Your task to perform on an android device: toggle location history Image 0: 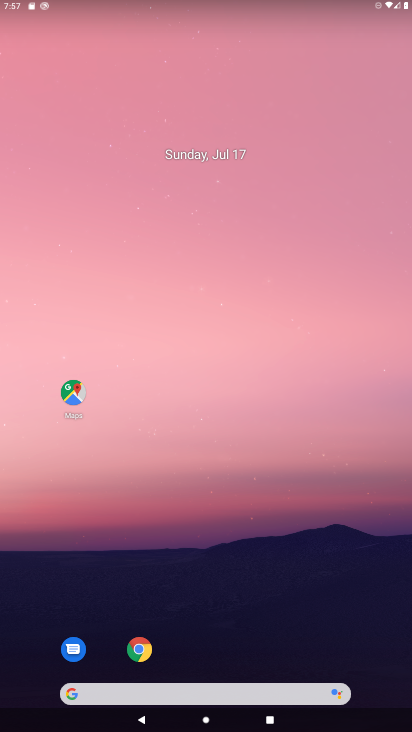
Step 0: drag from (219, 660) to (211, 20)
Your task to perform on an android device: toggle location history Image 1: 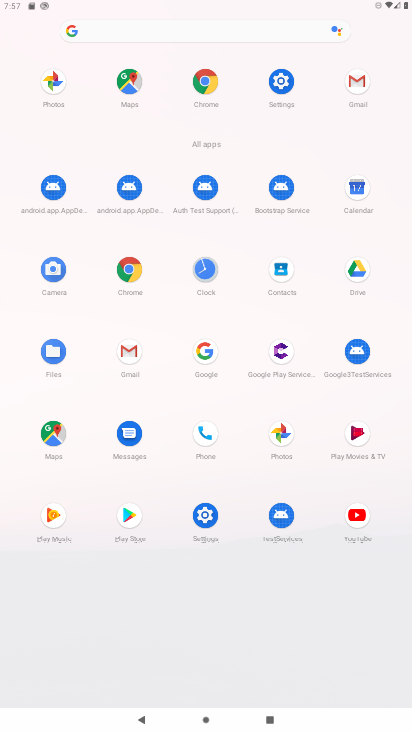
Step 1: click (291, 76)
Your task to perform on an android device: toggle location history Image 2: 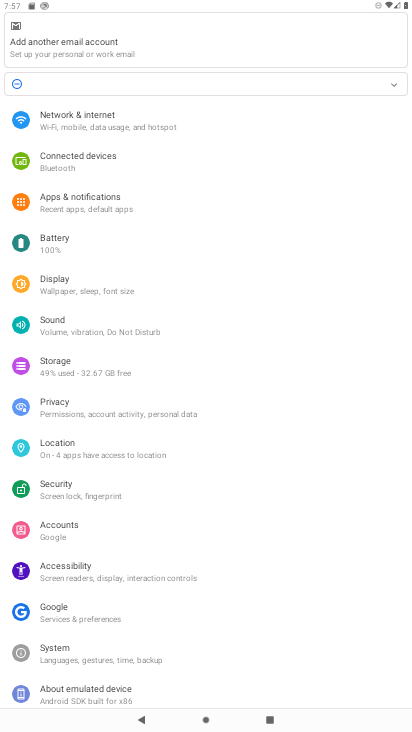
Step 2: click (68, 461)
Your task to perform on an android device: toggle location history Image 3: 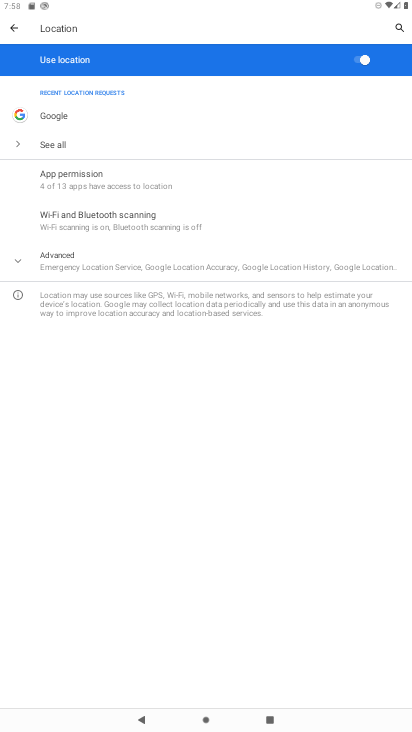
Step 3: click (115, 245)
Your task to perform on an android device: toggle location history Image 4: 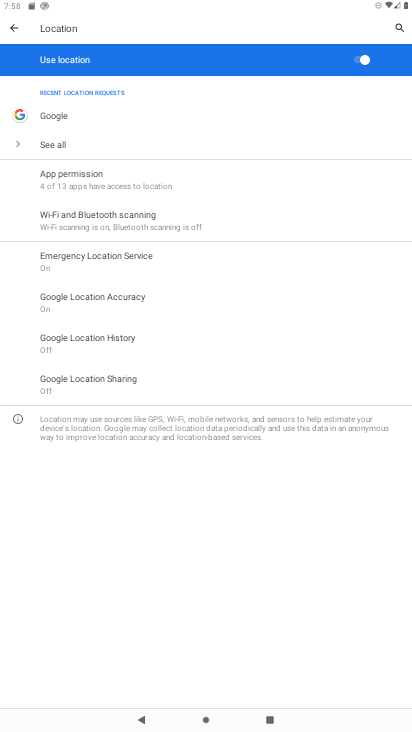
Step 4: click (119, 340)
Your task to perform on an android device: toggle location history Image 5: 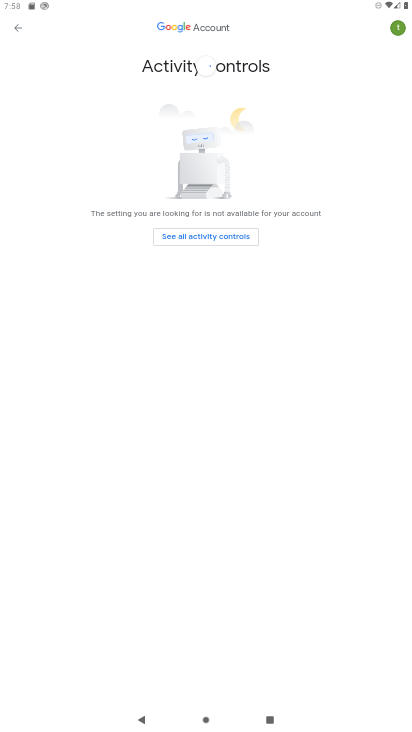
Step 5: click (173, 240)
Your task to perform on an android device: toggle location history Image 6: 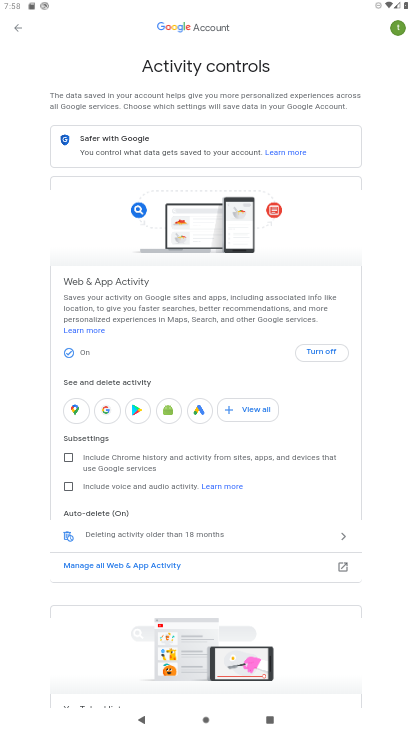
Step 6: click (329, 357)
Your task to perform on an android device: toggle location history Image 7: 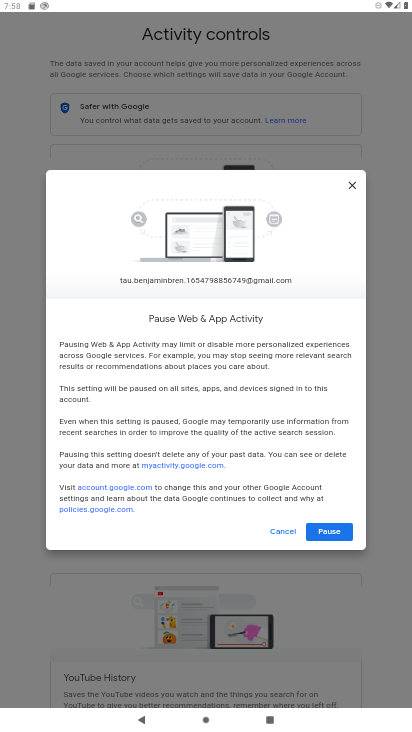
Step 7: click (337, 520)
Your task to perform on an android device: toggle location history Image 8: 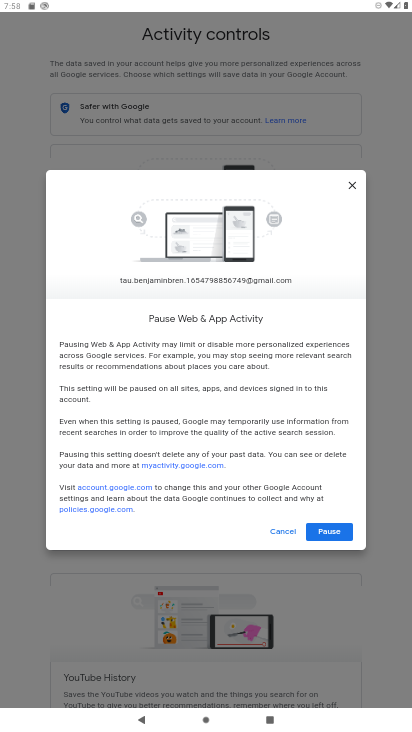
Step 8: click (346, 534)
Your task to perform on an android device: toggle location history Image 9: 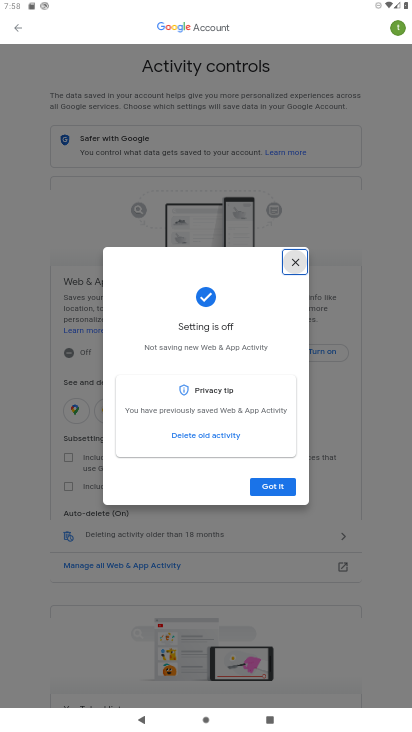
Step 9: click (264, 483)
Your task to perform on an android device: toggle location history Image 10: 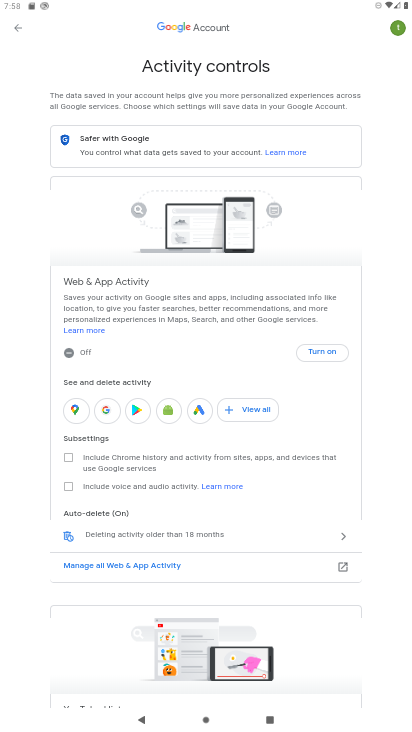
Step 10: task complete